Your task to perform on an android device: turn off priority inbox in the gmail app Image 0: 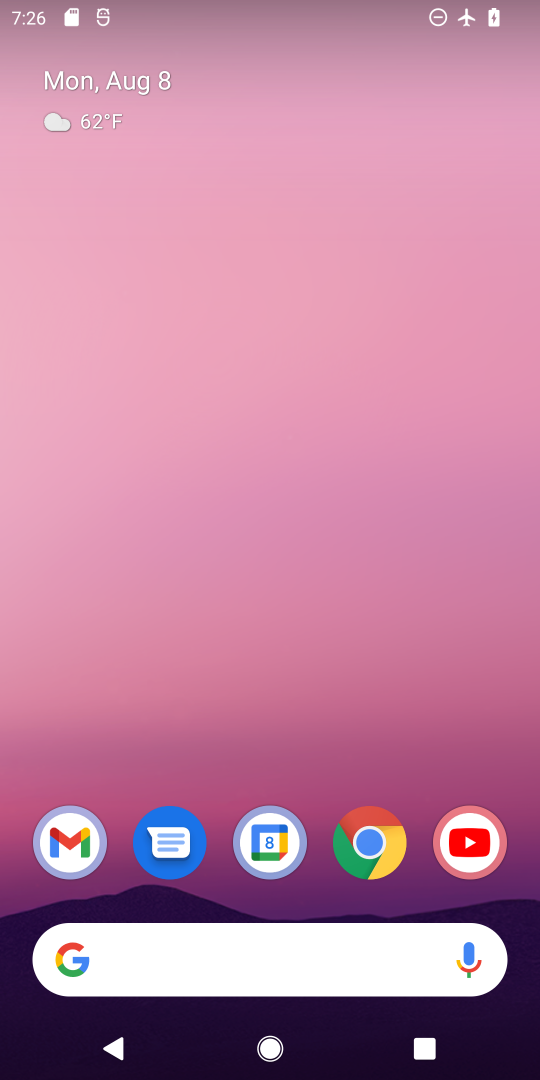
Step 0: drag from (265, 911) to (182, 120)
Your task to perform on an android device: turn off priority inbox in the gmail app Image 1: 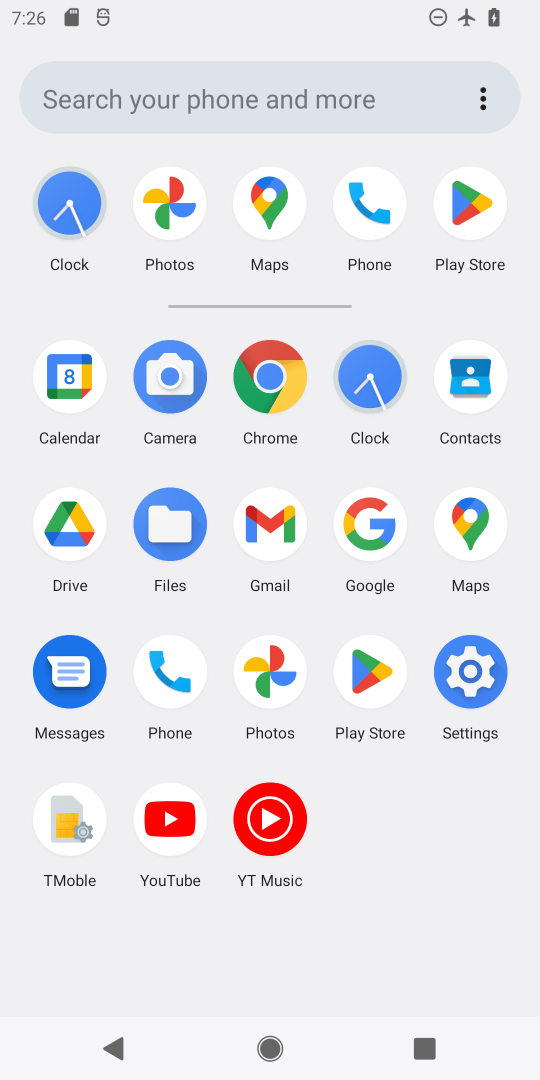
Step 1: click (290, 517)
Your task to perform on an android device: turn off priority inbox in the gmail app Image 2: 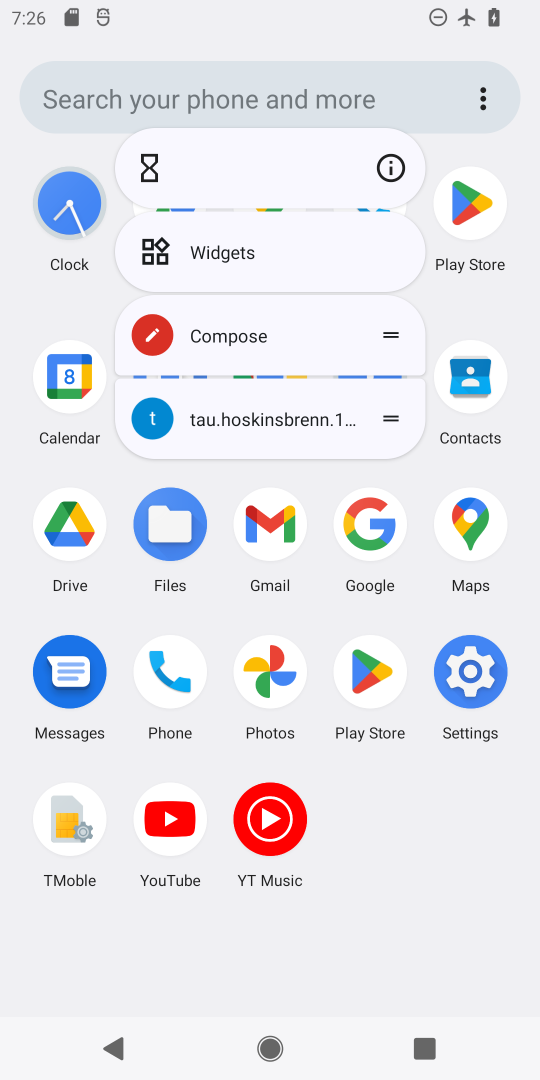
Step 2: click (284, 520)
Your task to perform on an android device: turn off priority inbox in the gmail app Image 3: 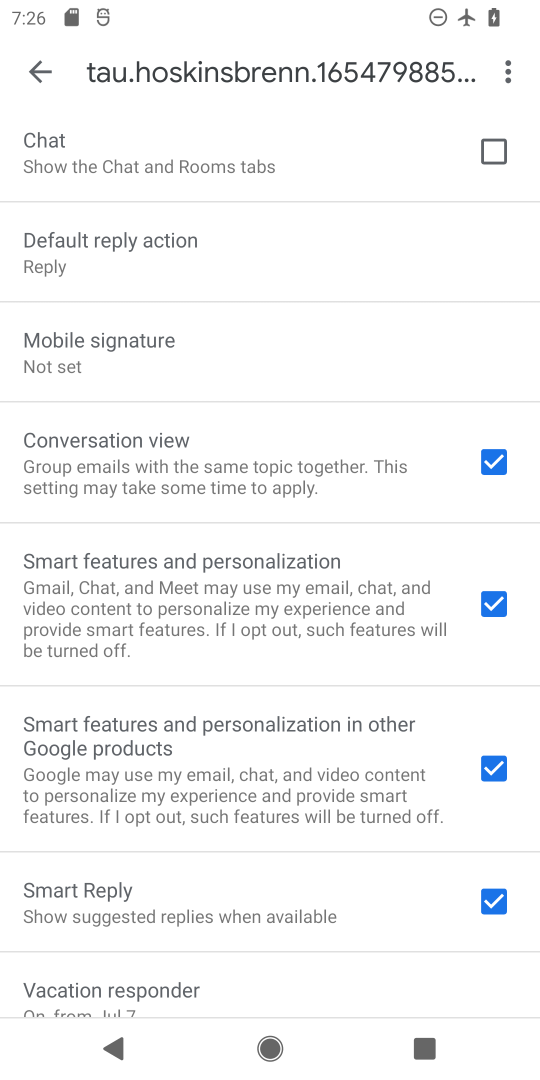
Step 3: click (15, 55)
Your task to perform on an android device: turn off priority inbox in the gmail app Image 4: 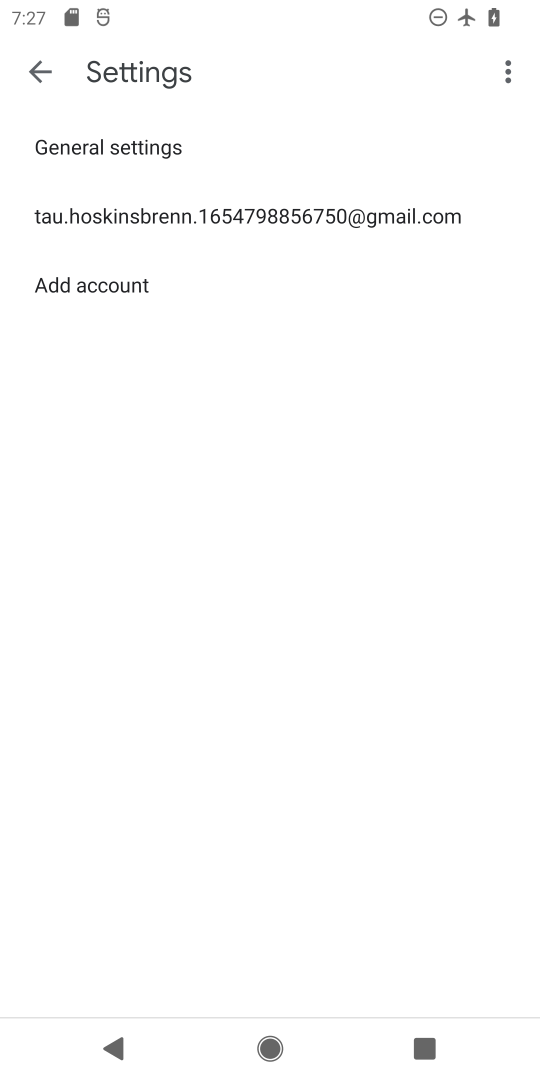
Step 4: click (107, 209)
Your task to perform on an android device: turn off priority inbox in the gmail app Image 5: 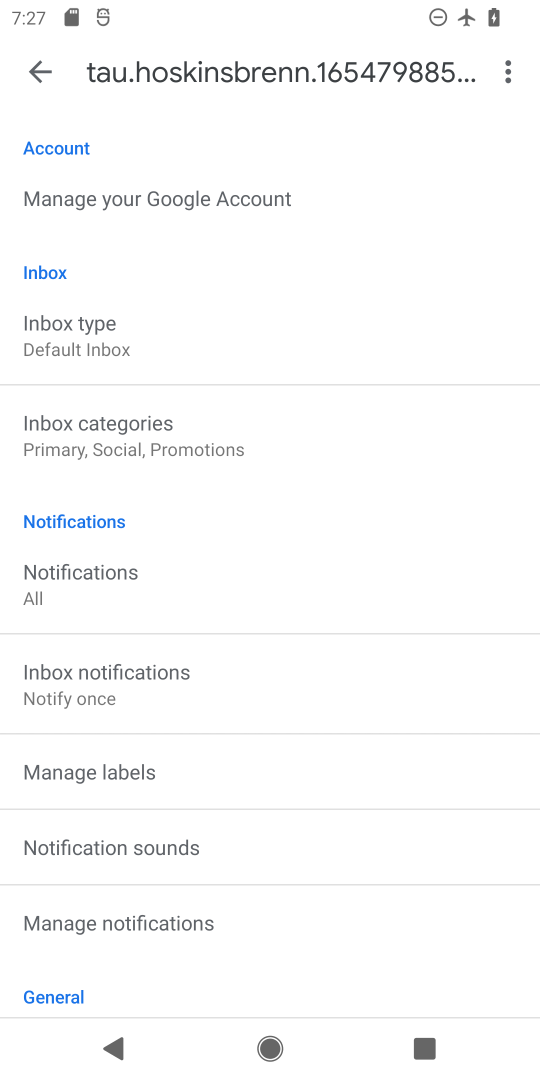
Step 5: click (104, 325)
Your task to perform on an android device: turn off priority inbox in the gmail app Image 6: 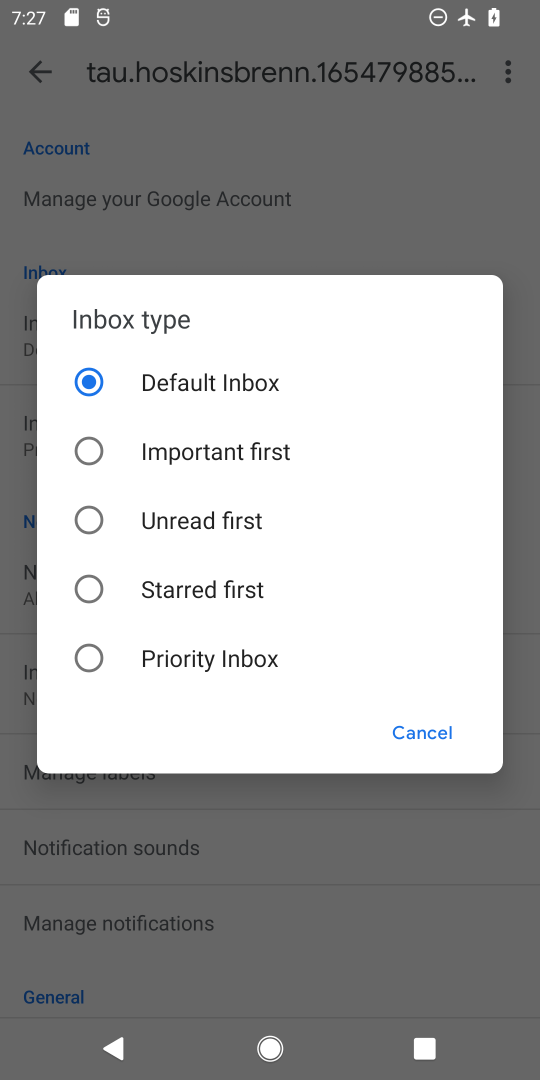
Step 6: task complete